Your task to perform on an android device: install app "eBay: The shopping marketplace" Image 0: 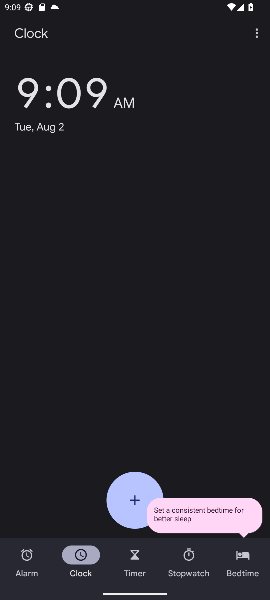
Step 0: press home button
Your task to perform on an android device: install app "eBay: The shopping marketplace" Image 1: 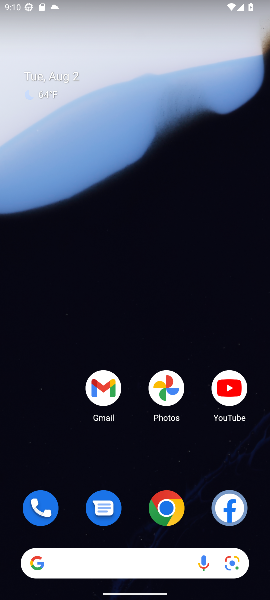
Step 1: drag from (149, 542) to (160, 353)
Your task to perform on an android device: install app "eBay: The shopping marketplace" Image 2: 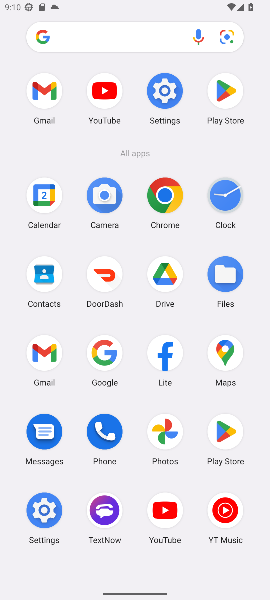
Step 2: click (241, 102)
Your task to perform on an android device: install app "eBay: The shopping marketplace" Image 3: 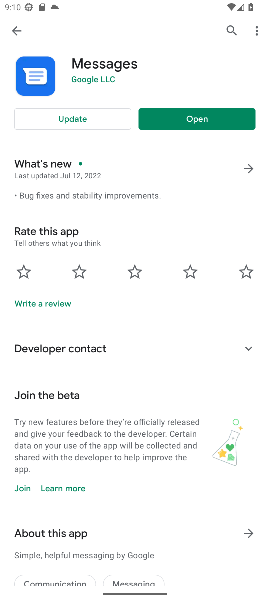
Step 3: click (16, 29)
Your task to perform on an android device: install app "eBay: The shopping marketplace" Image 4: 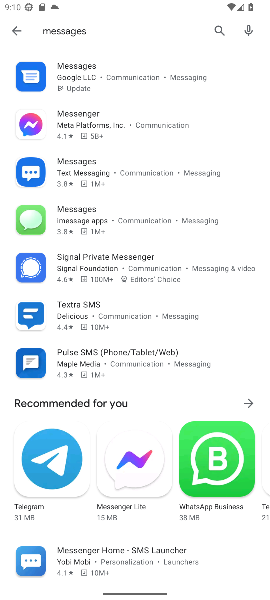
Step 4: click (16, 29)
Your task to perform on an android device: install app "eBay: The shopping marketplace" Image 5: 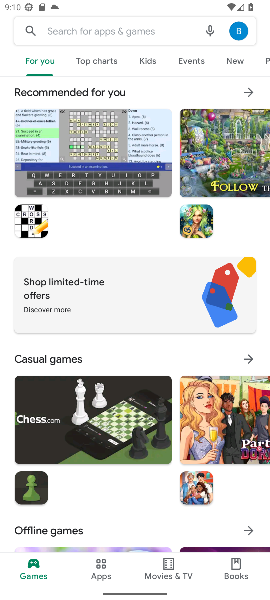
Step 5: click (170, 22)
Your task to perform on an android device: install app "eBay: The shopping marketplace" Image 6: 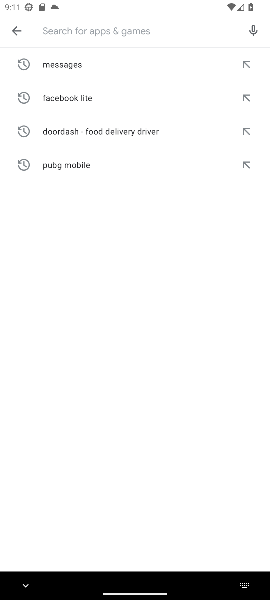
Step 6: type "eBay: The shopping marketplace"
Your task to perform on an android device: install app "eBay: The shopping marketplace" Image 7: 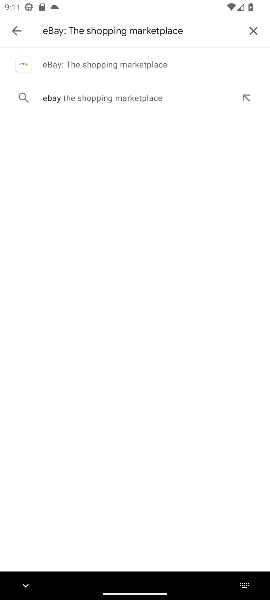
Step 7: click (119, 69)
Your task to perform on an android device: install app "eBay: The shopping marketplace" Image 8: 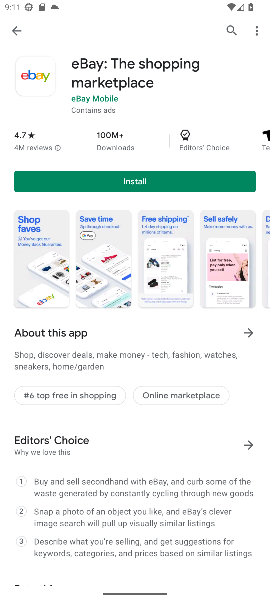
Step 8: click (172, 181)
Your task to perform on an android device: install app "eBay: The shopping marketplace" Image 9: 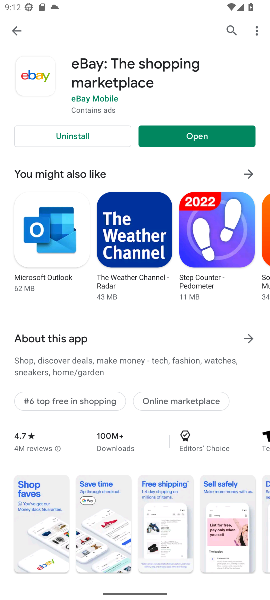
Step 9: click (191, 137)
Your task to perform on an android device: install app "eBay: The shopping marketplace" Image 10: 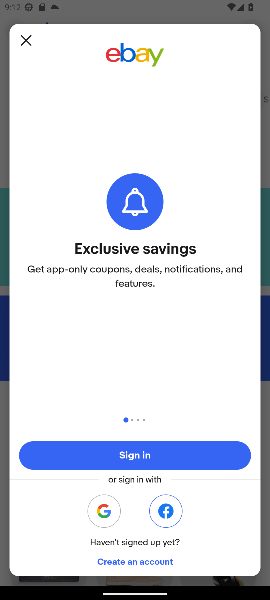
Step 10: task complete